Your task to perform on an android device: open app "Facebook Lite" Image 0: 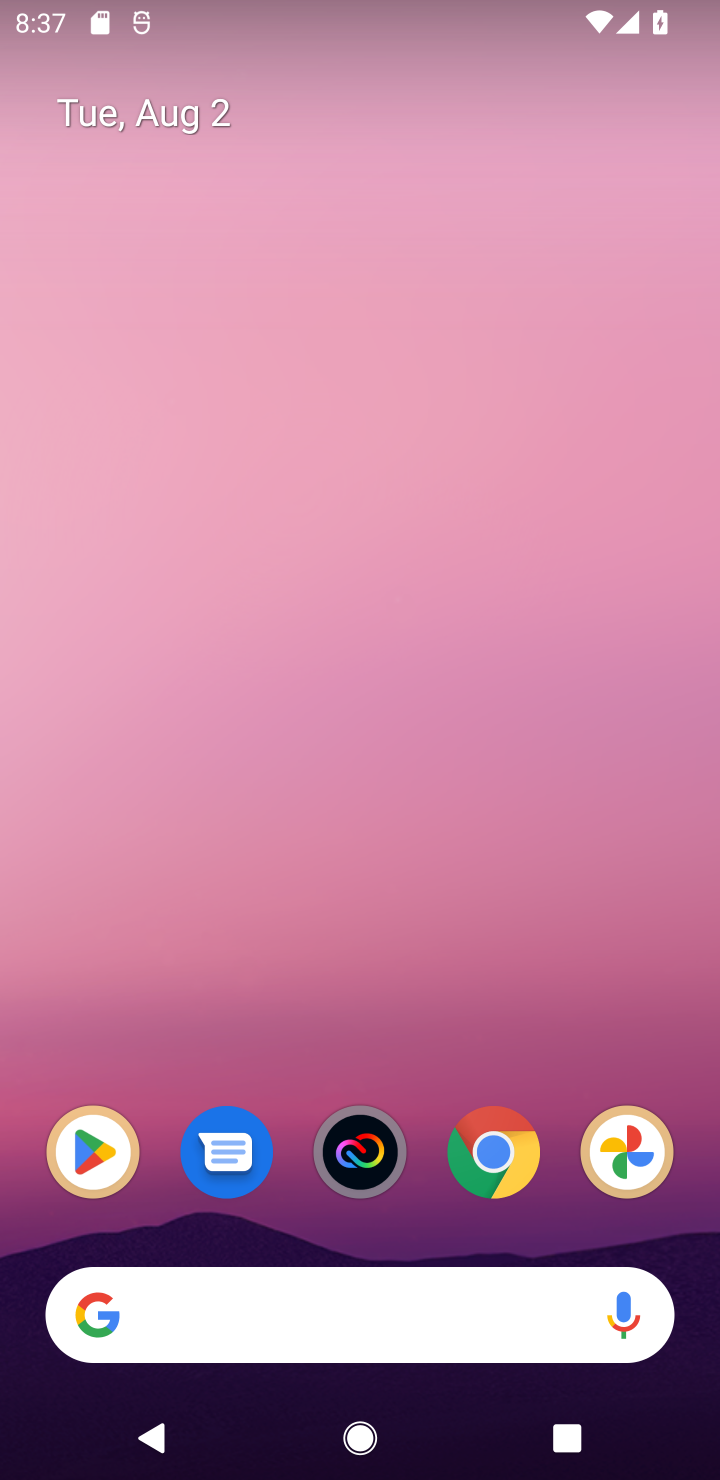
Step 0: click (78, 1177)
Your task to perform on an android device: open app "Facebook Lite" Image 1: 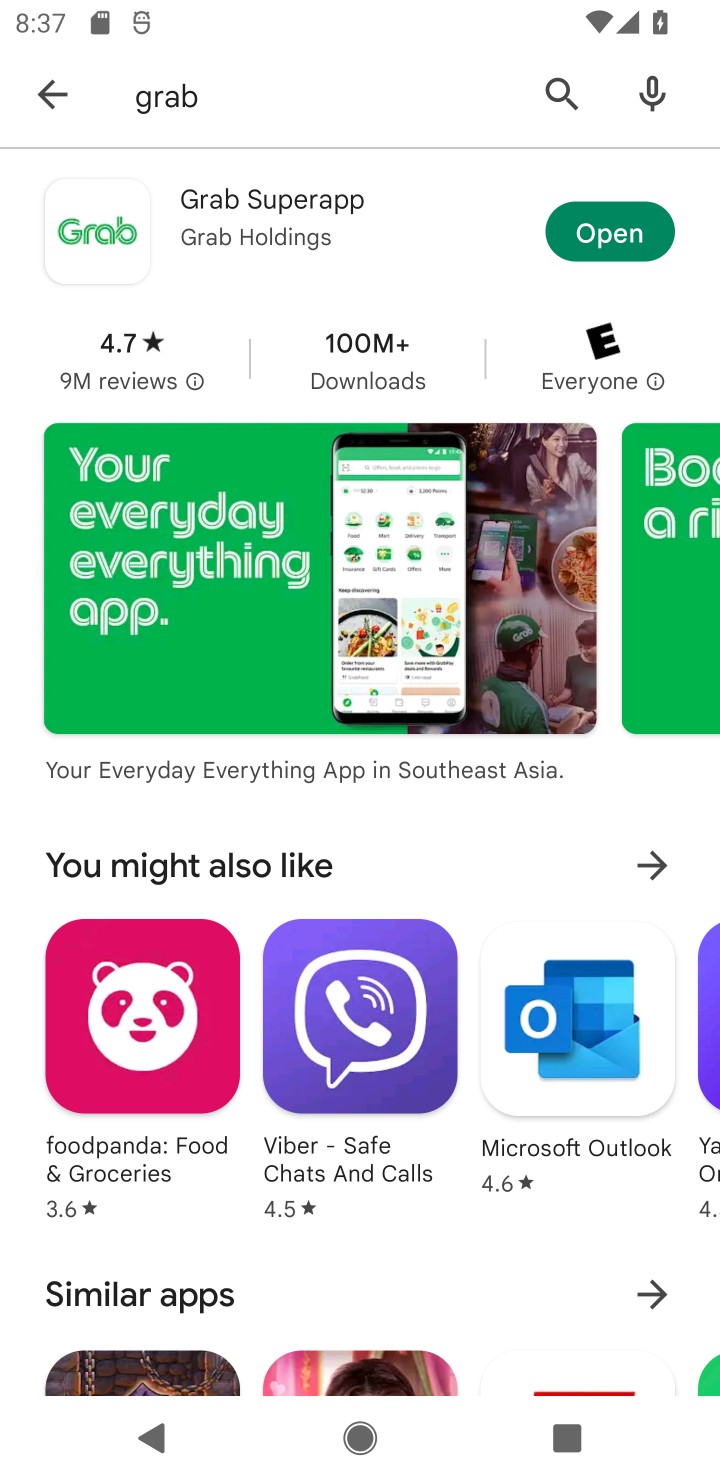
Step 1: click (32, 85)
Your task to perform on an android device: open app "Facebook Lite" Image 2: 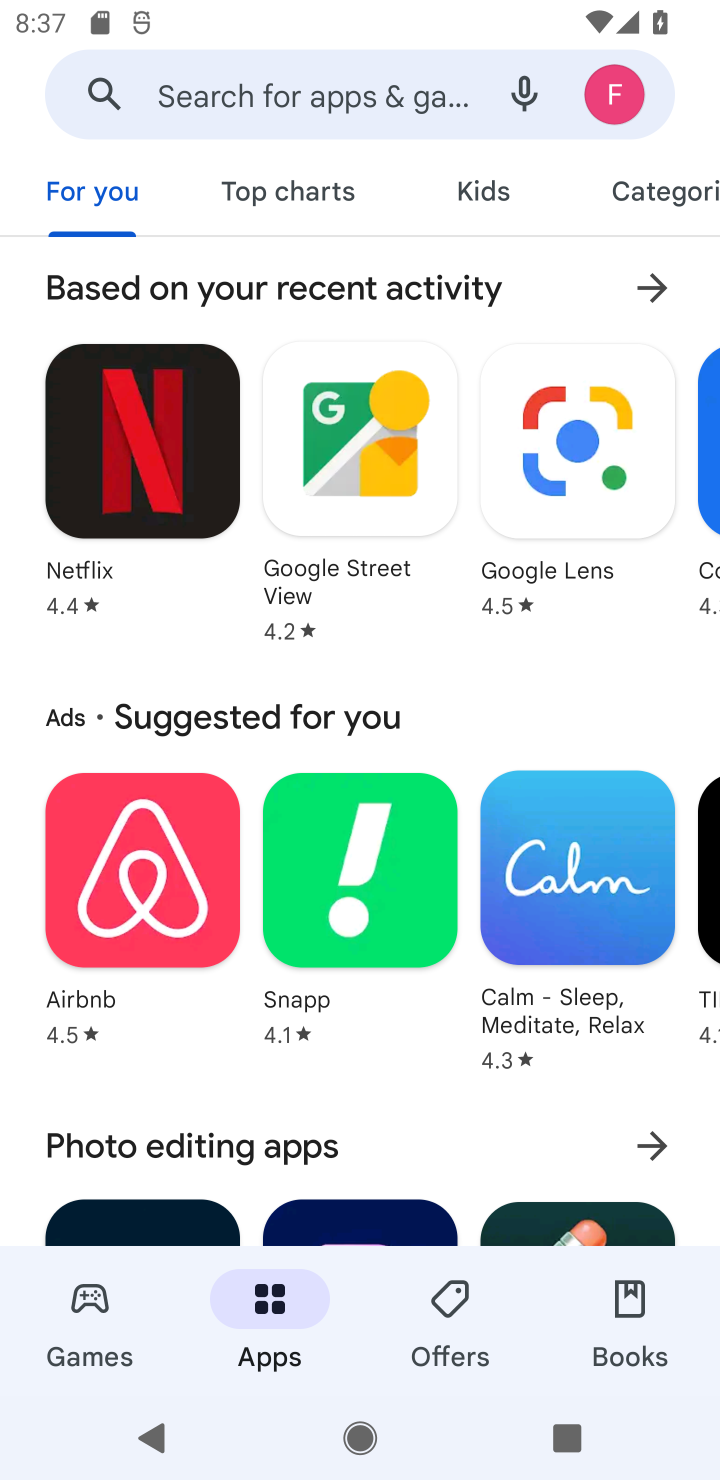
Step 2: click (332, 86)
Your task to perform on an android device: open app "Facebook Lite" Image 3: 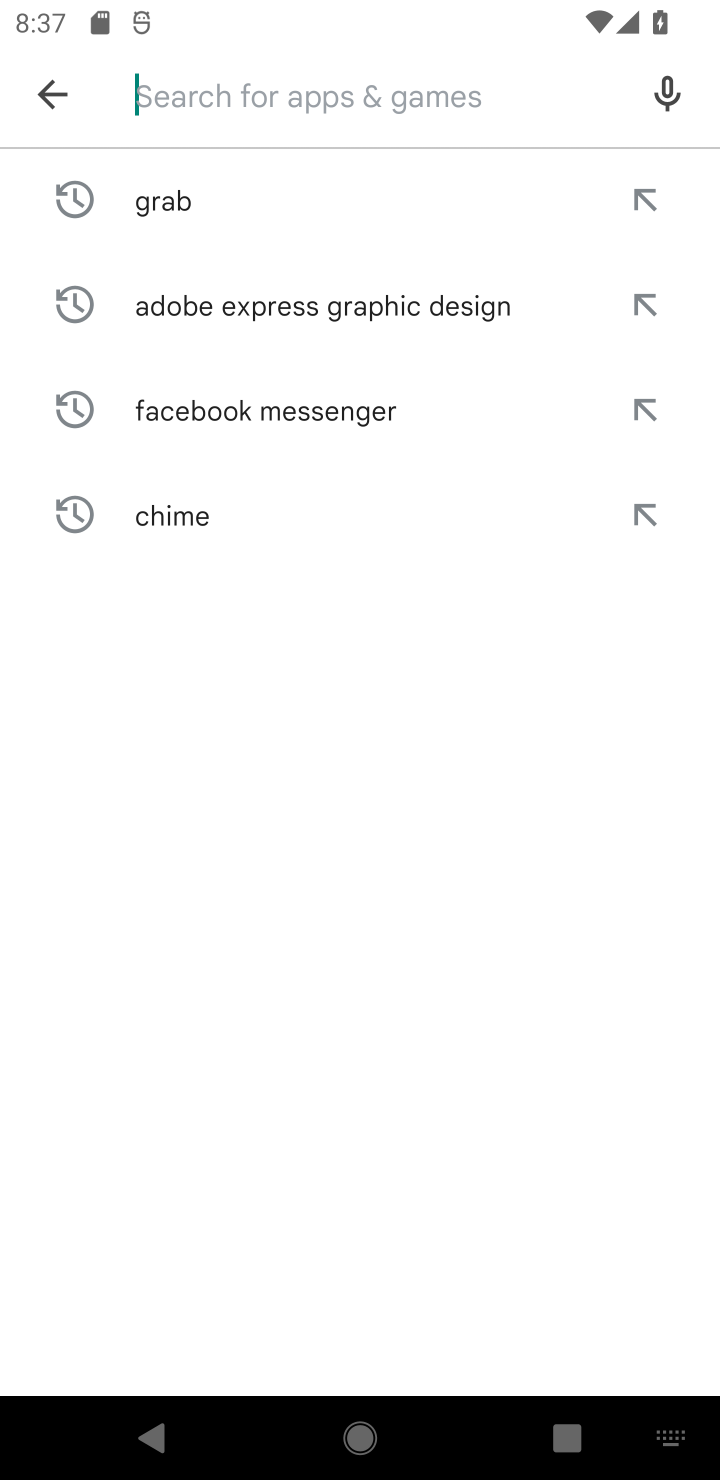
Step 3: type "Facebook Lite"
Your task to perform on an android device: open app "Facebook Lite" Image 4: 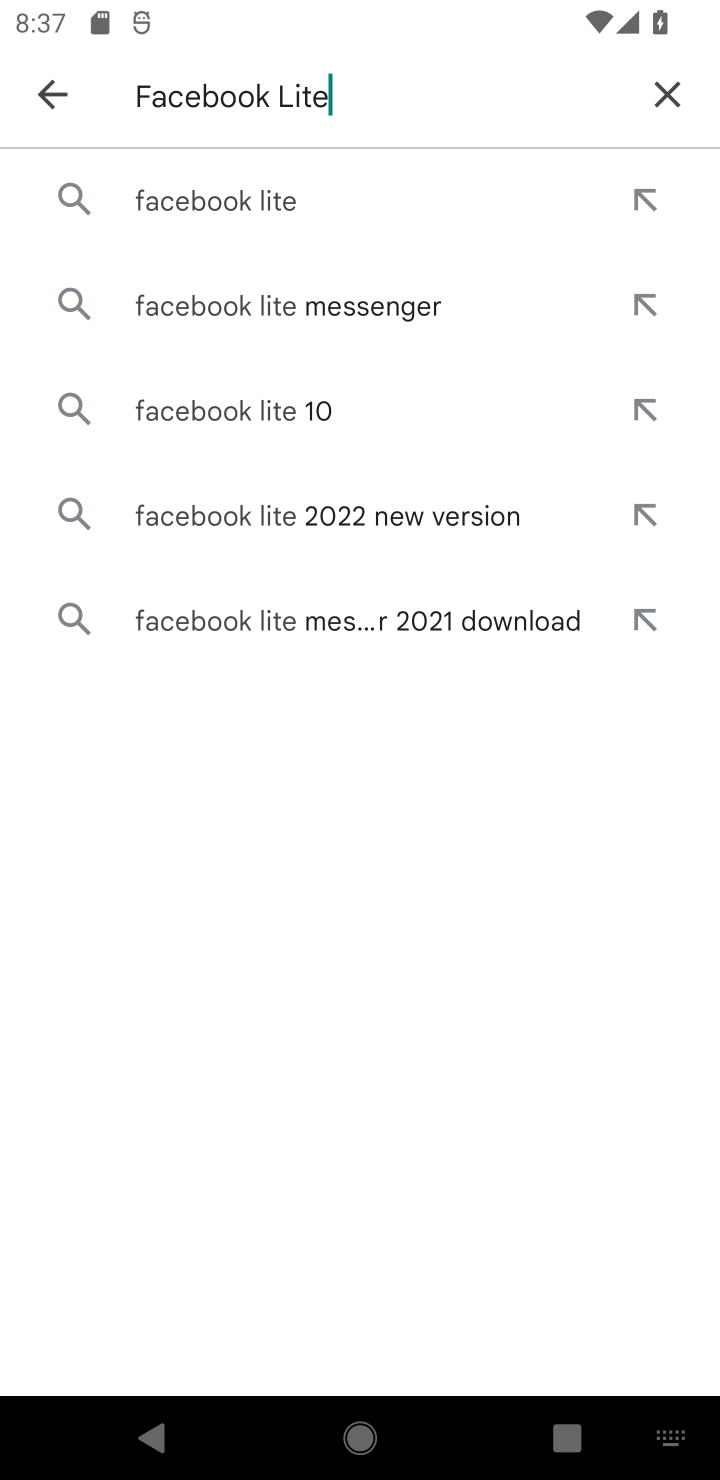
Step 4: click (224, 203)
Your task to perform on an android device: open app "Facebook Lite" Image 5: 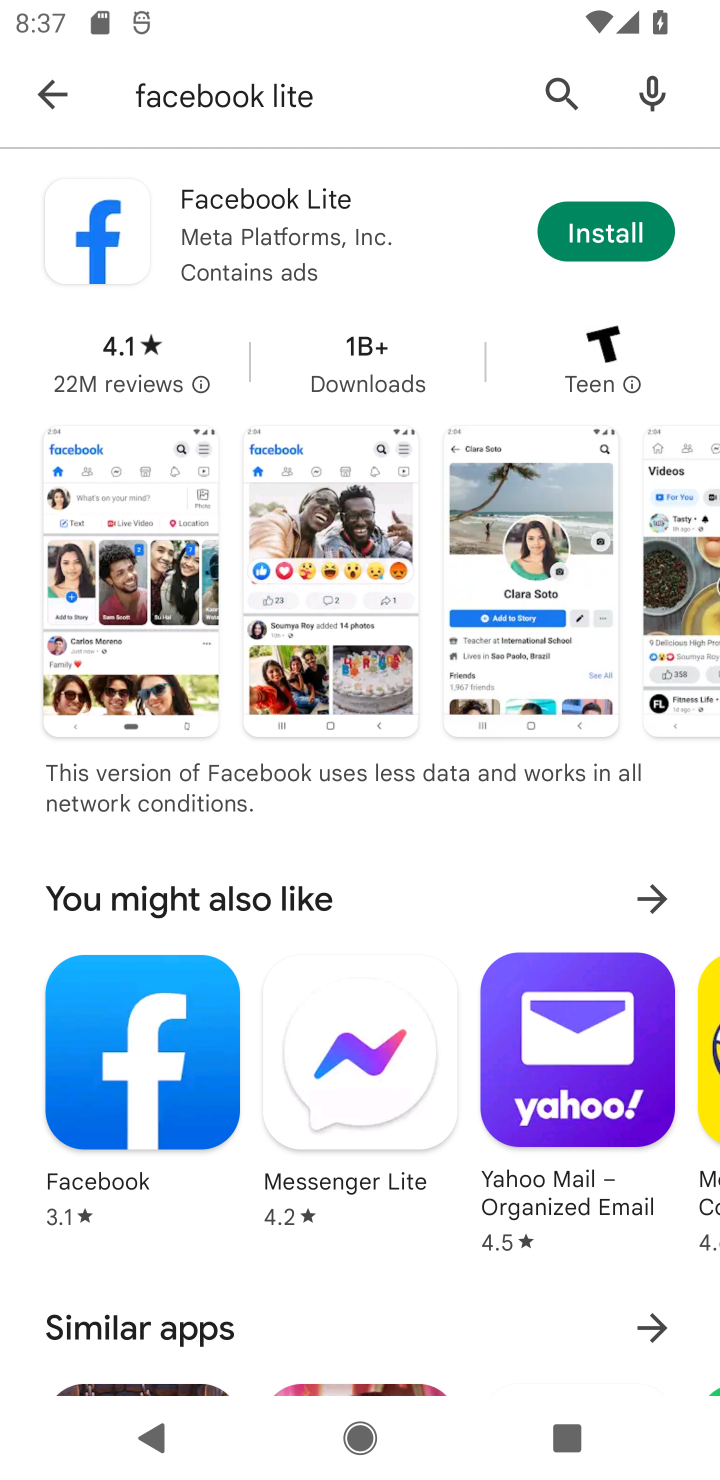
Step 5: click (561, 215)
Your task to perform on an android device: open app "Facebook Lite" Image 6: 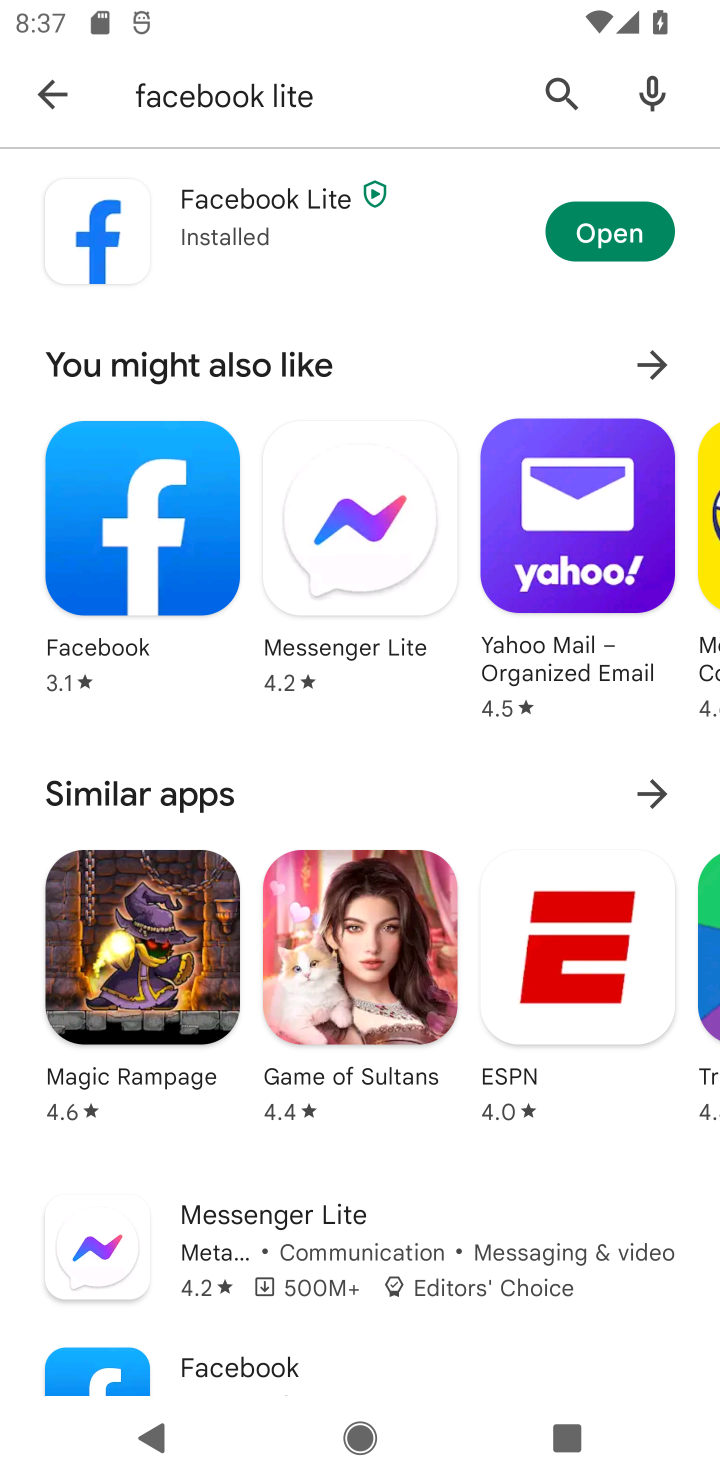
Step 6: click (610, 217)
Your task to perform on an android device: open app "Facebook Lite" Image 7: 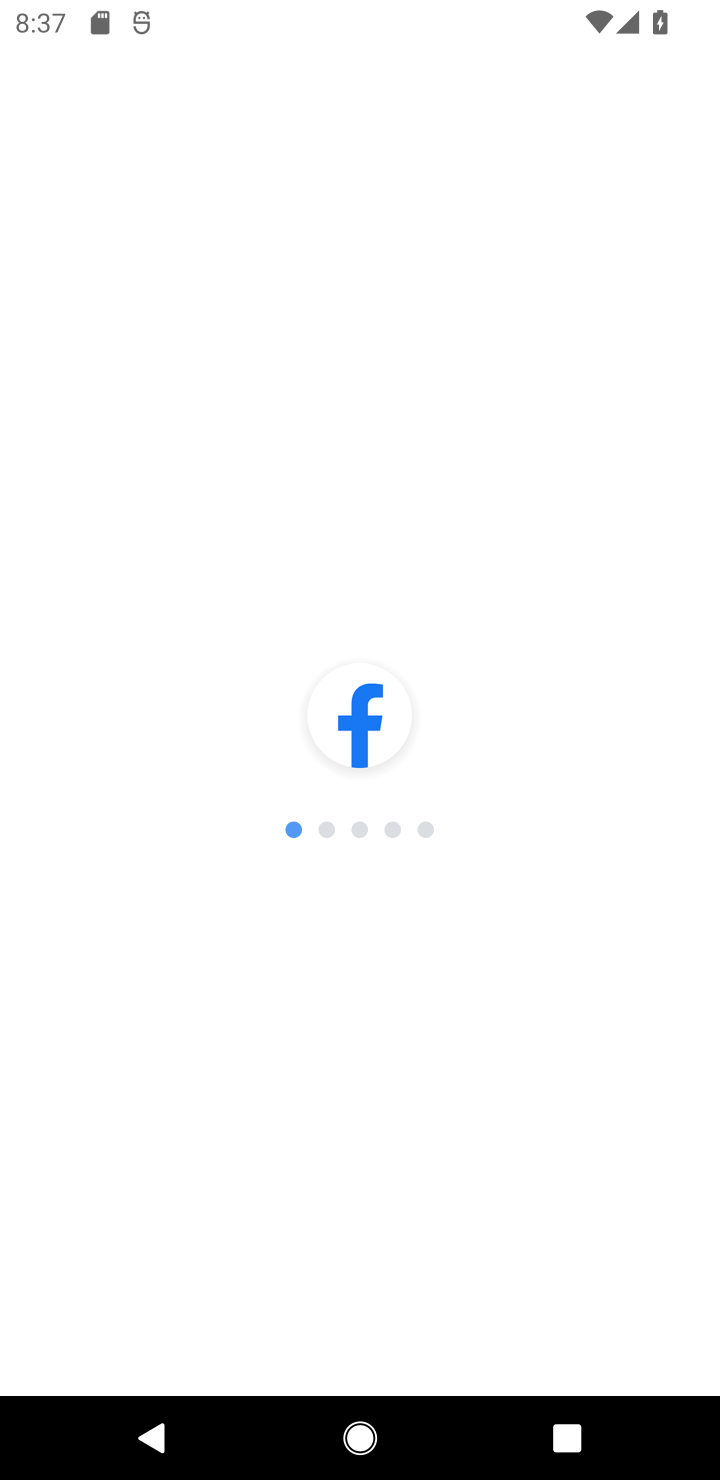
Step 7: task complete